Your task to perform on an android device: uninstall "Mercado Libre" Image 0: 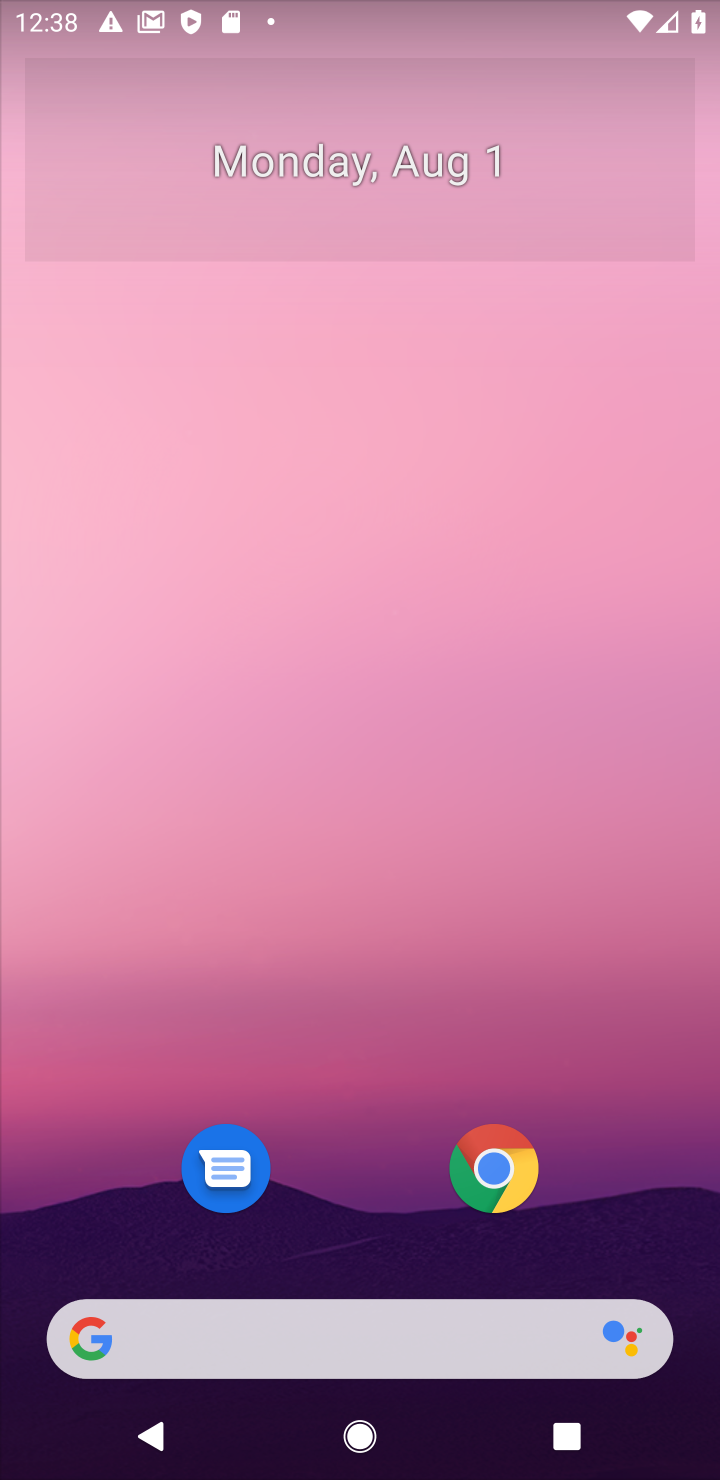
Step 0: press home button
Your task to perform on an android device: uninstall "Mercado Libre" Image 1: 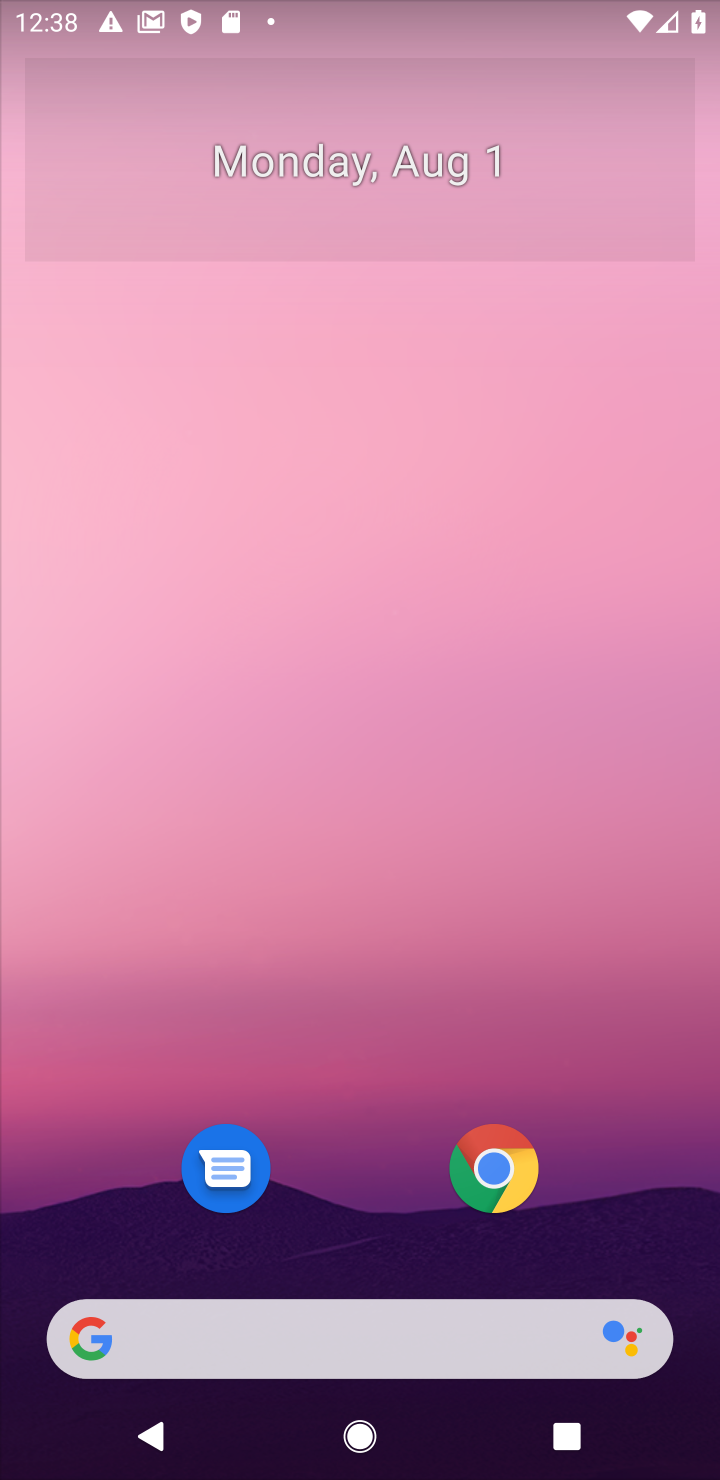
Step 1: drag from (426, 940) to (440, 106)
Your task to perform on an android device: uninstall "Mercado Libre" Image 2: 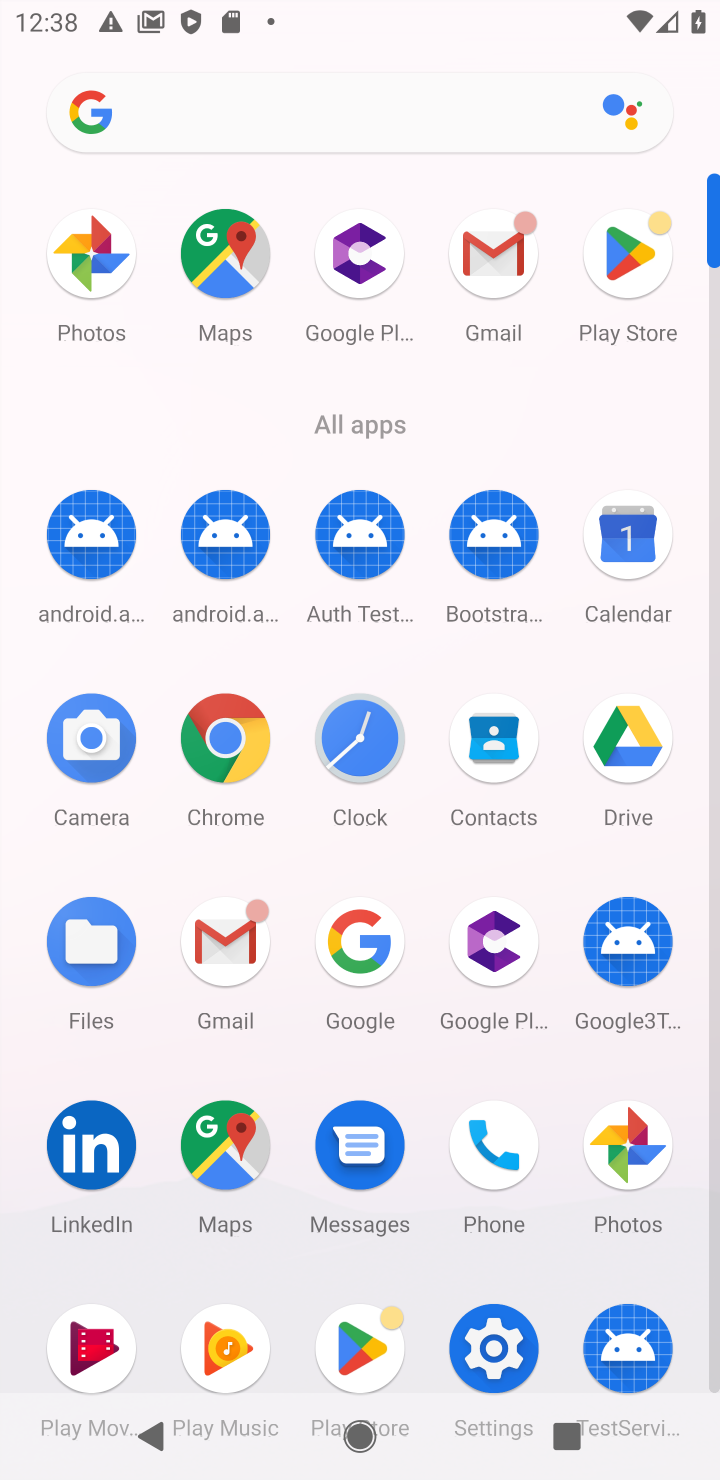
Step 2: click (624, 258)
Your task to perform on an android device: uninstall "Mercado Libre" Image 3: 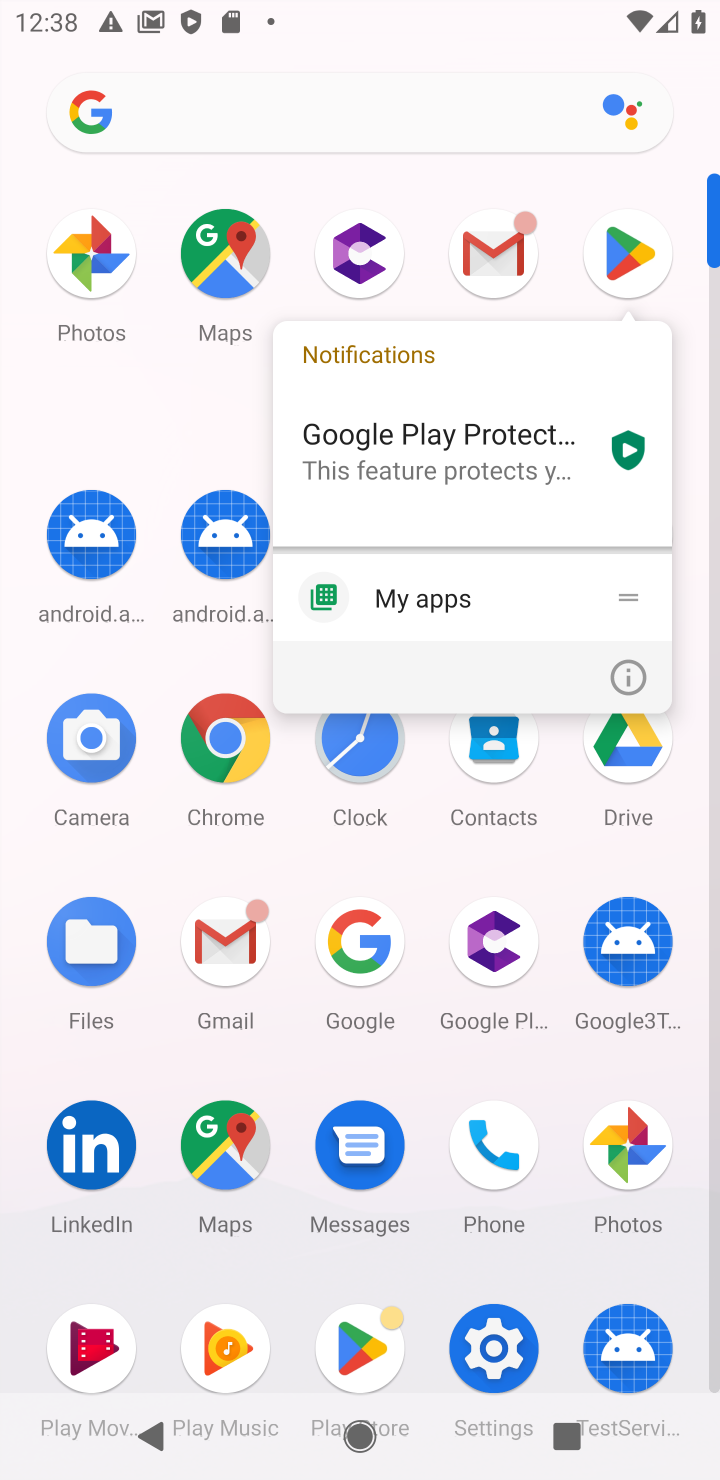
Step 3: click (624, 251)
Your task to perform on an android device: uninstall "Mercado Libre" Image 4: 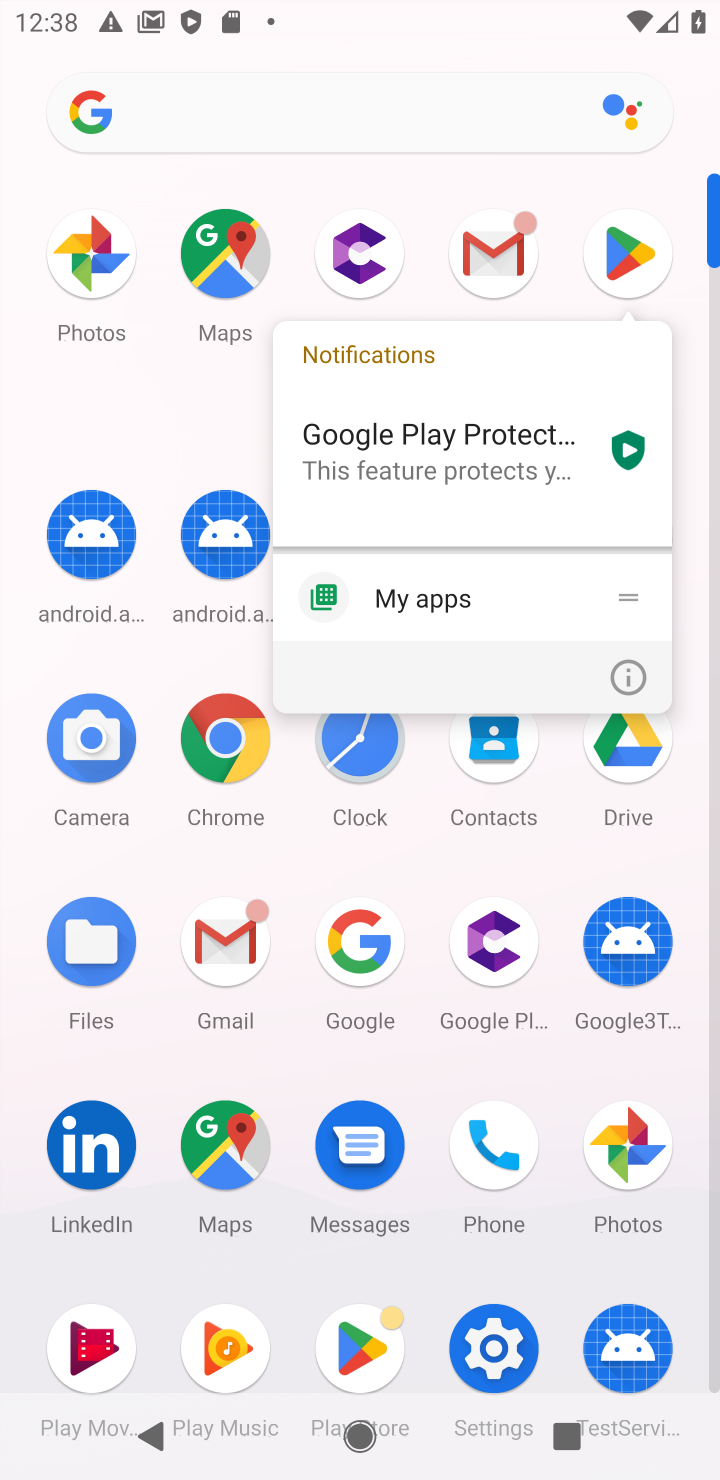
Step 4: click (636, 249)
Your task to perform on an android device: uninstall "Mercado Libre" Image 5: 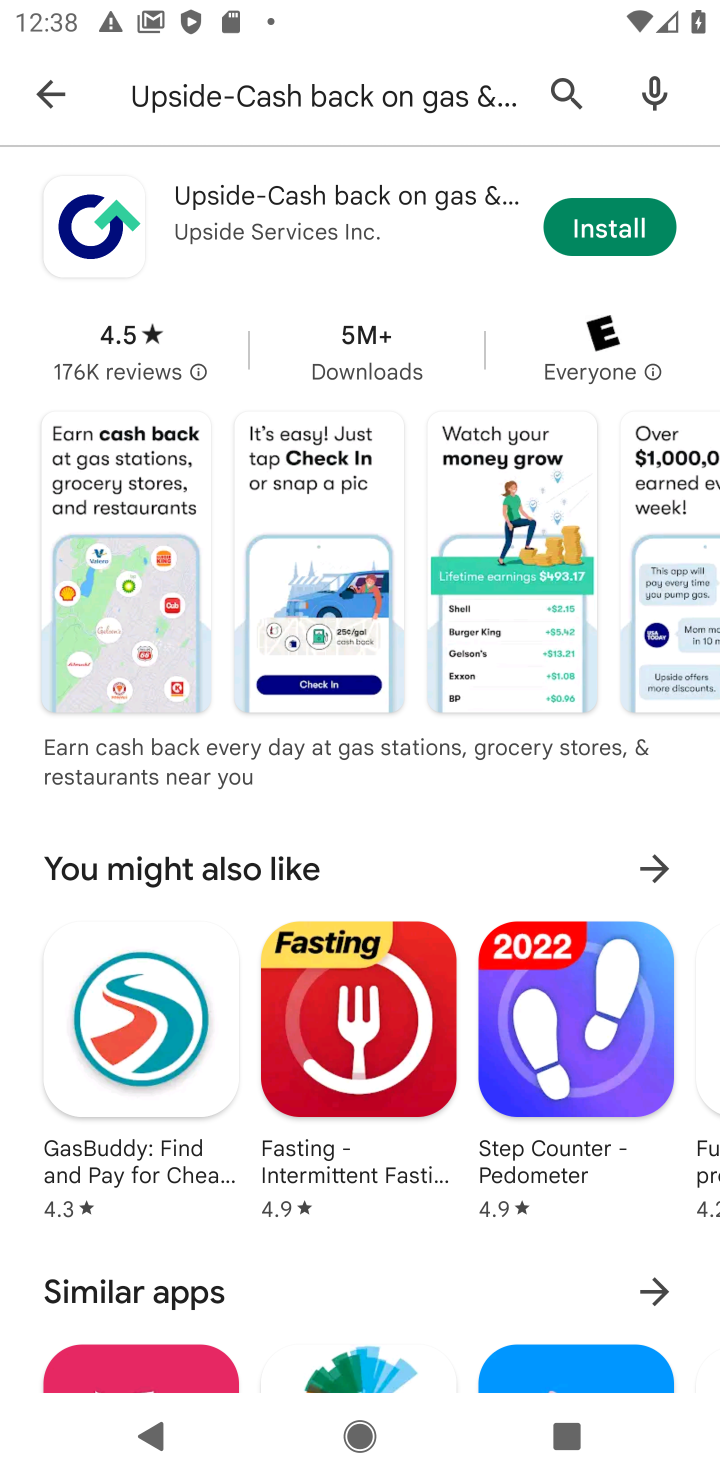
Step 5: click (411, 95)
Your task to perform on an android device: uninstall "Mercado Libre" Image 6: 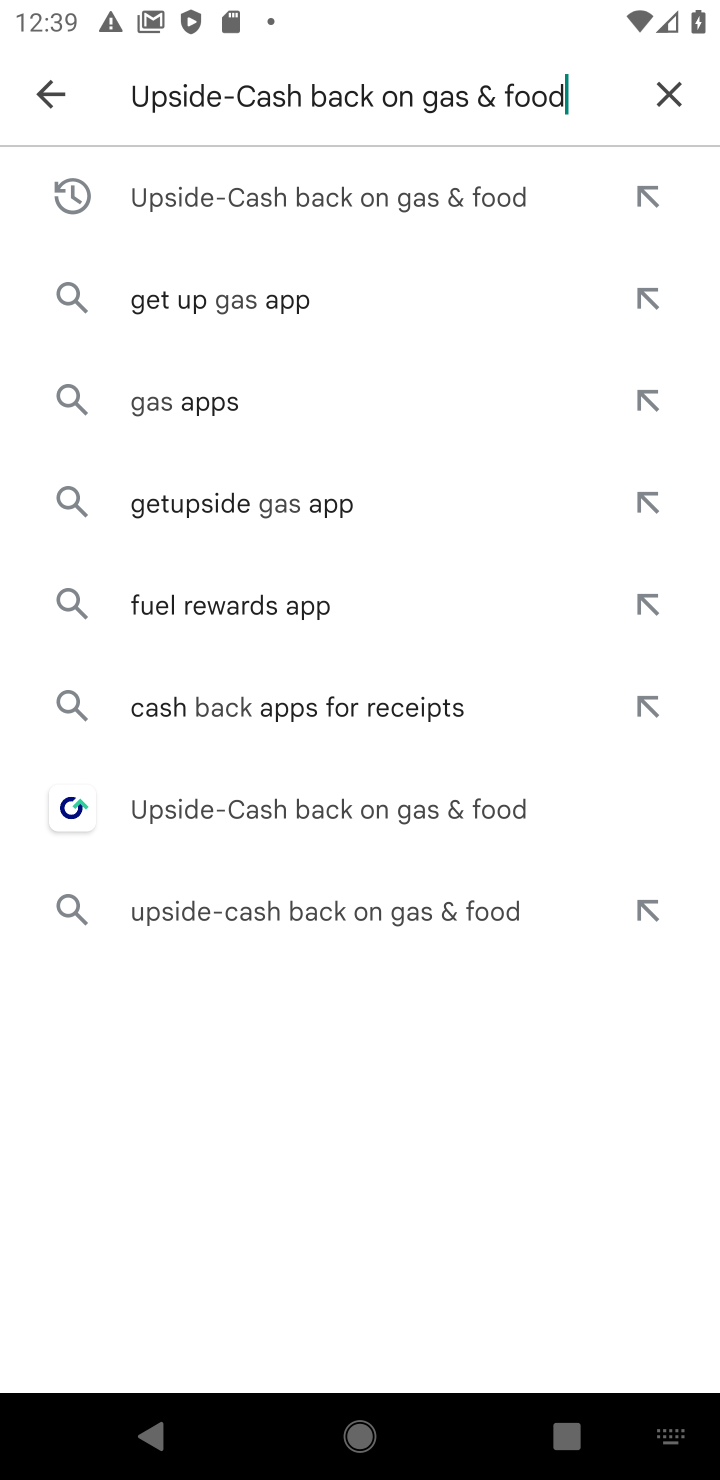
Step 6: click (667, 93)
Your task to perform on an android device: uninstall "Mercado Libre" Image 7: 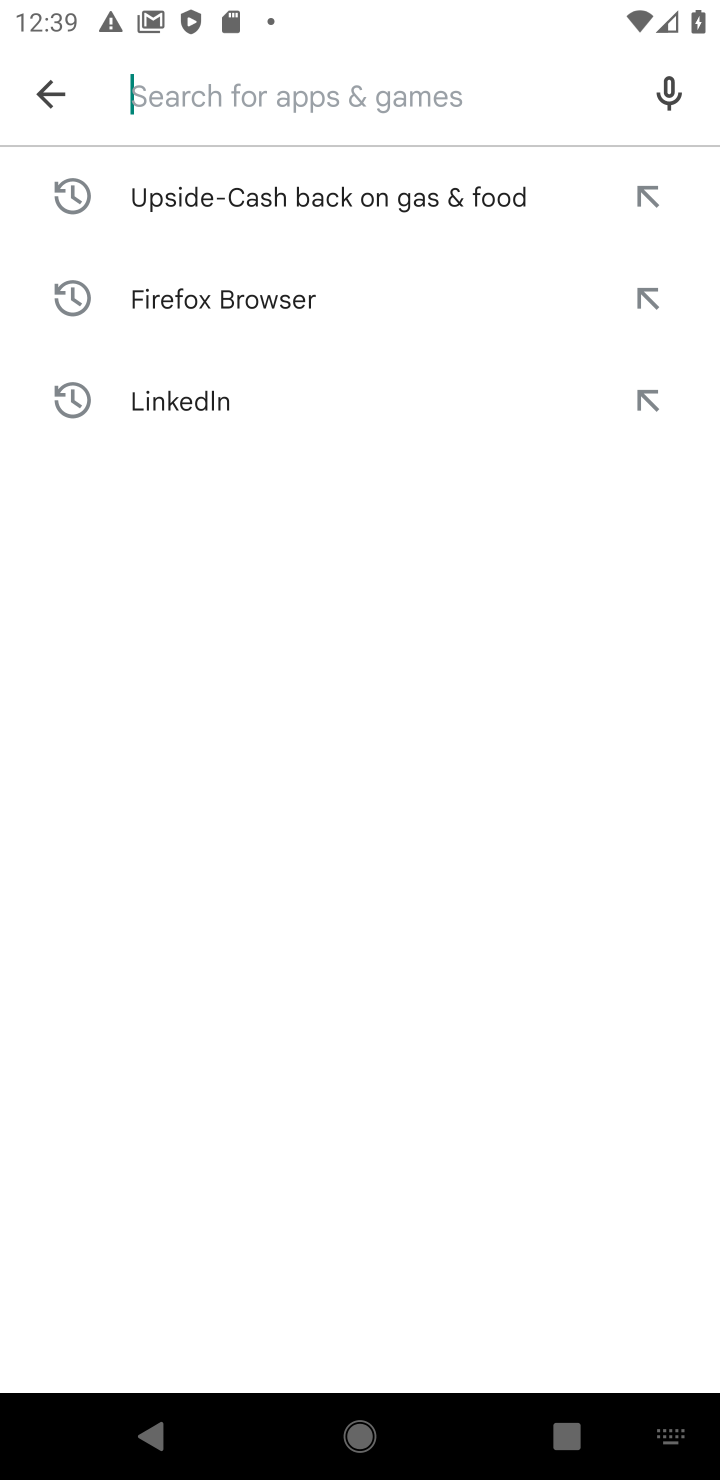
Step 7: type "Mercado Libre"
Your task to perform on an android device: uninstall "Mercado Libre" Image 8: 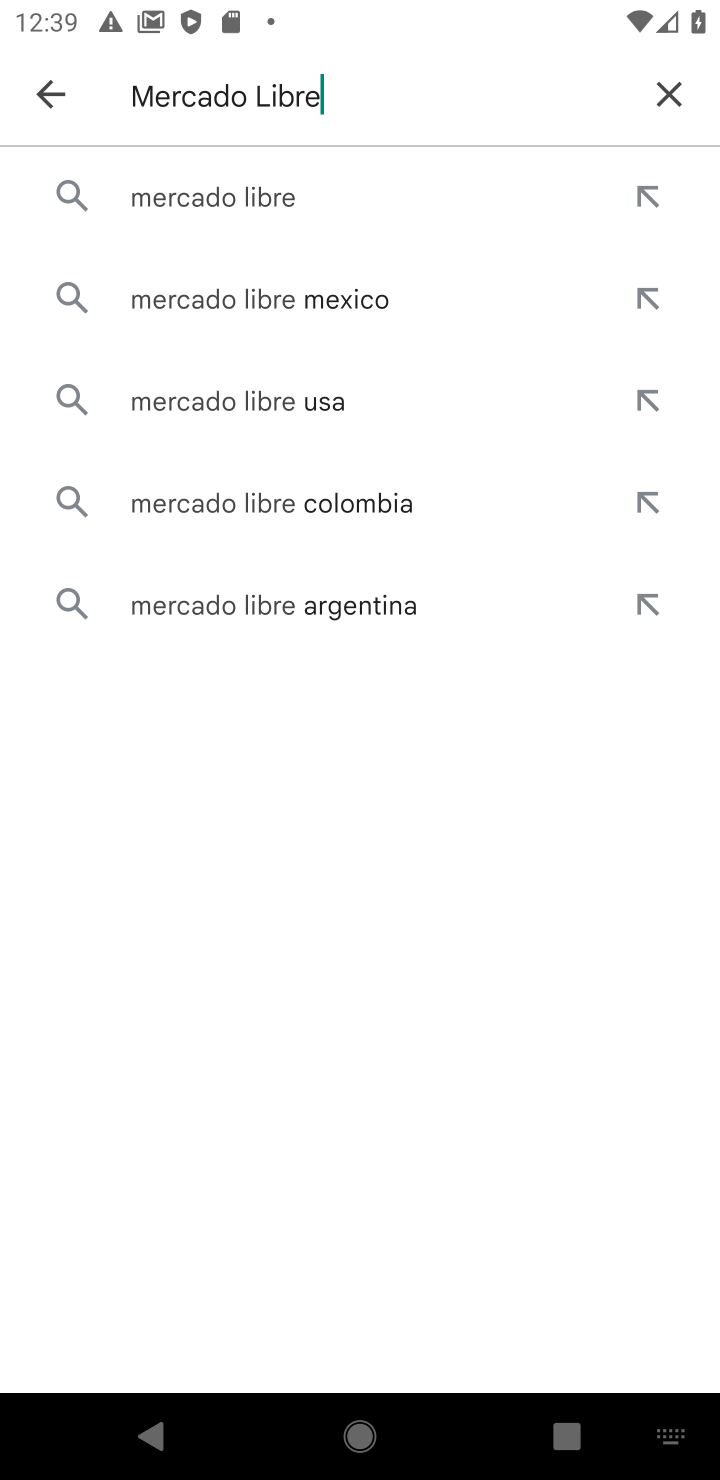
Step 8: press enter
Your task to perform on an android device: uninstall "Mercado Libre" Image 9: 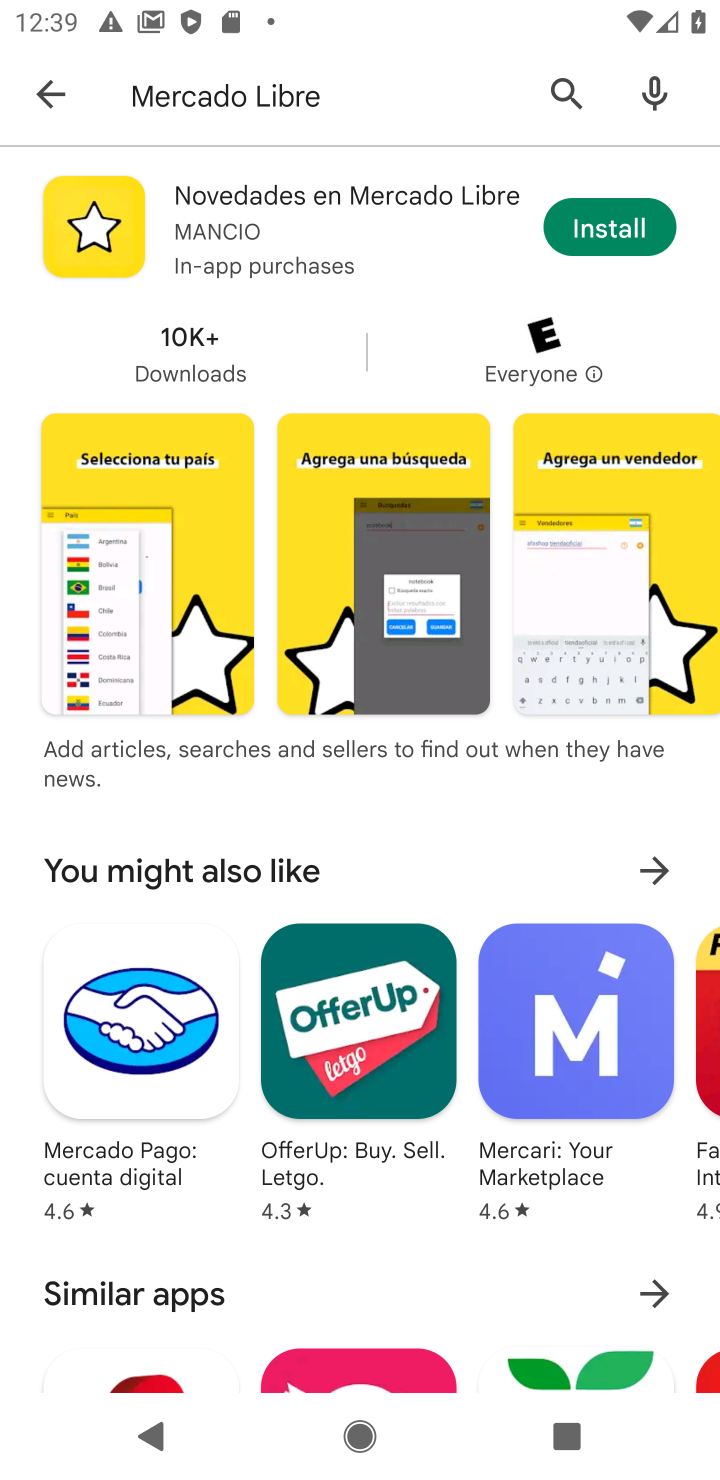
Step 9: task complete